Your task to perform on an android device: Go to Android settings Image 0: 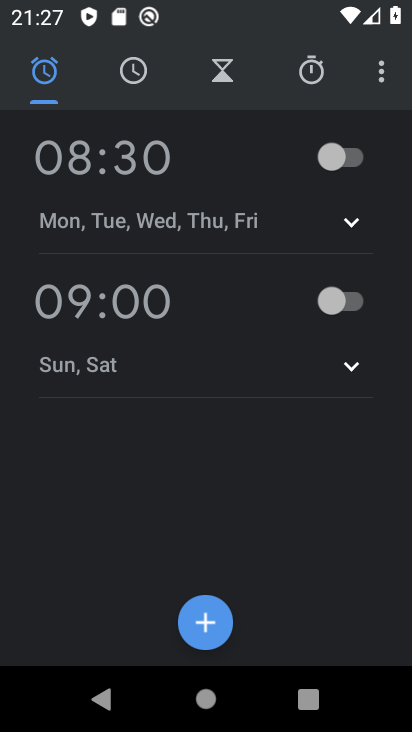
Step 0: press home button
Your task to perform on an android device: Go to Android settings Image 1: 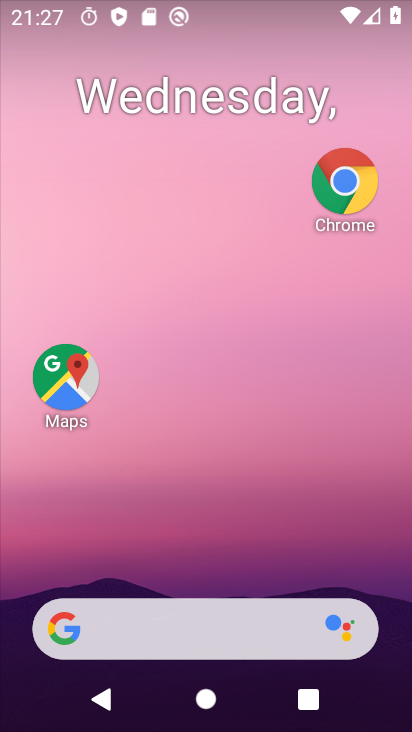
Step 1: drag from (240, 651) to (359, 279)
Your task to perform on an android device: Go to Android settings Image 2: 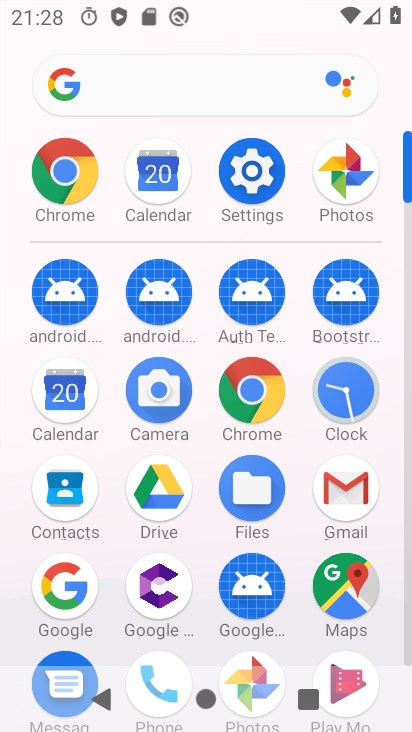
Step 2: click (252, 172)
Your task to perform on an android device: Go to Android settings Image 3: 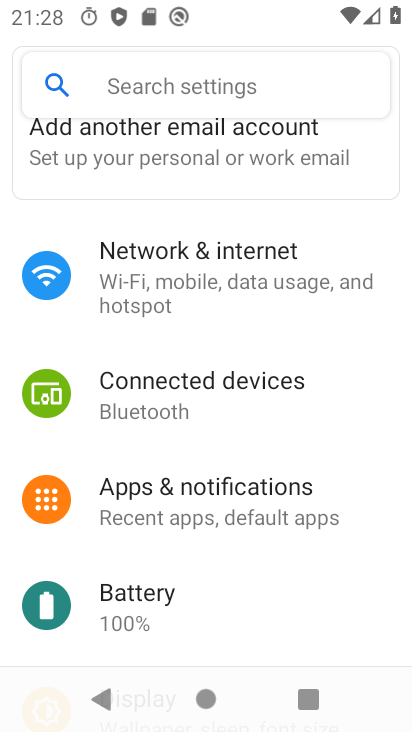
Step 3: click (184, 73)
Your task to perform on an android device: Go to Android settings Image 4: 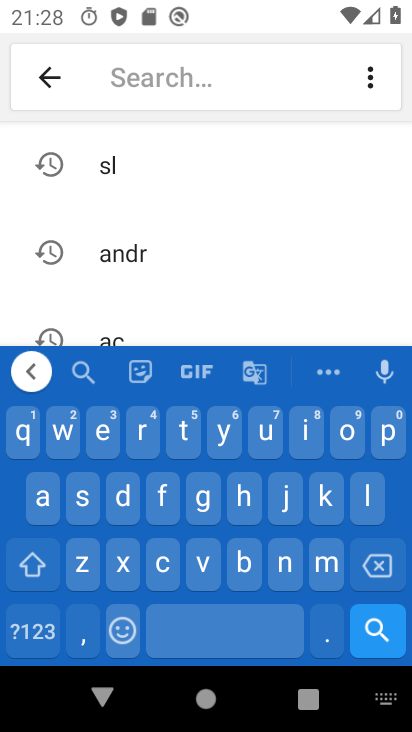
Step 4: click (118, 252)
Your task to perform on an android device: Go to Android settings Image 5: 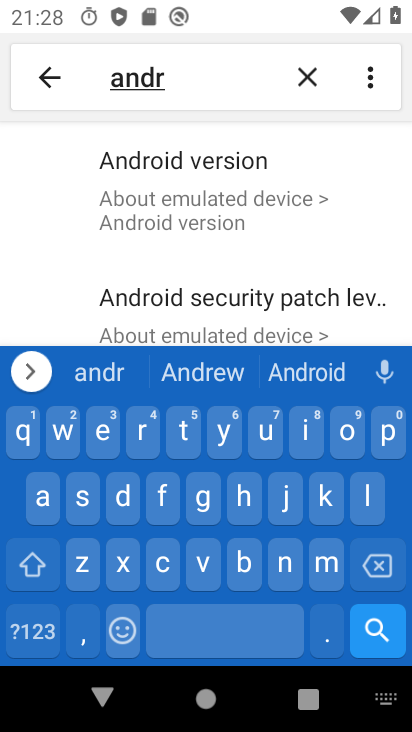
Step 5: click (181, 202)
Your task to perform on an android device: Go to Android settings Image 6: 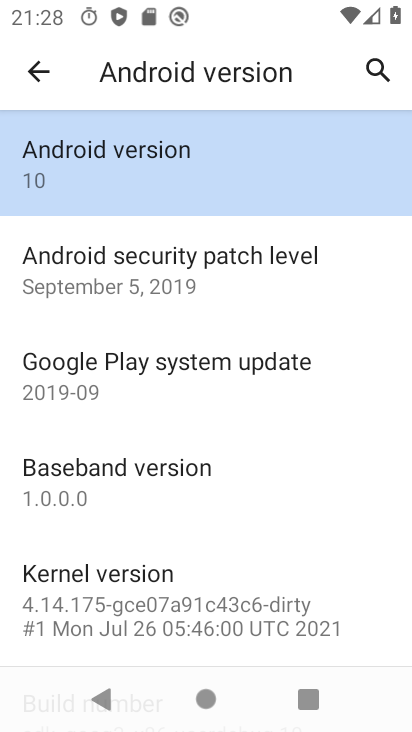
Step 6: task complete